Your task to perform on an android device: Open eBay Image 0: 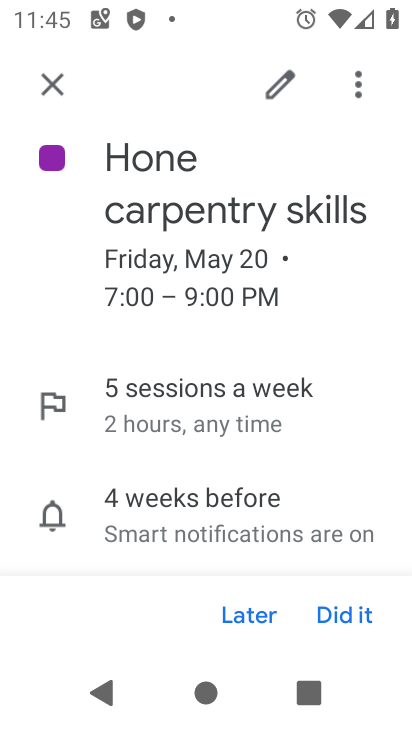
Step 0: press home button
Your task to perform on an android device: Open eBay Image 1: 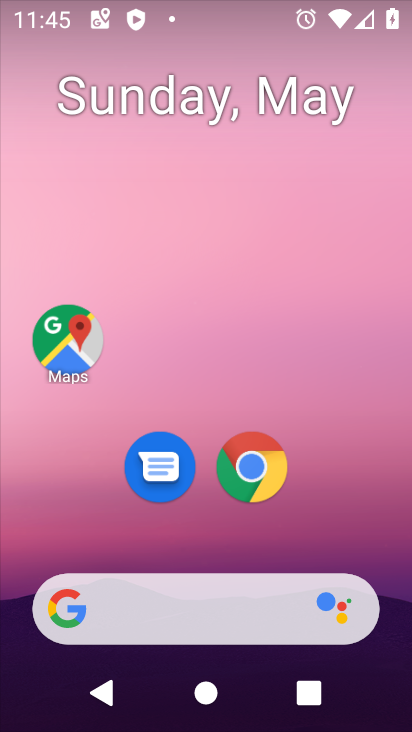
Step 1: click (256, 473)
Your task to perform on an android device: Open eBay Image 2: 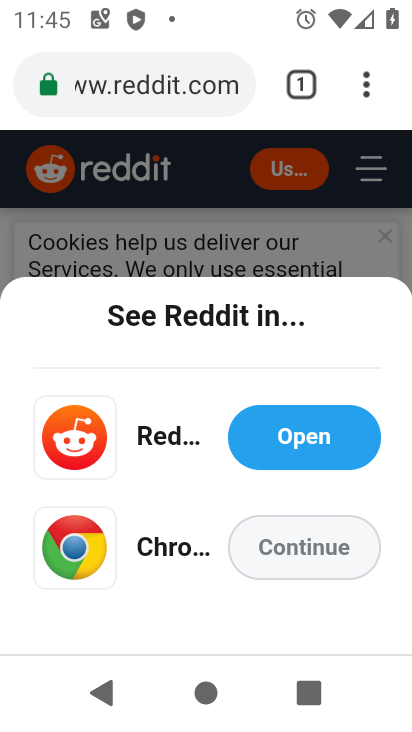
Step 2: click (98, 83)
Your task to perform on an android device: Open eBay Image 3: 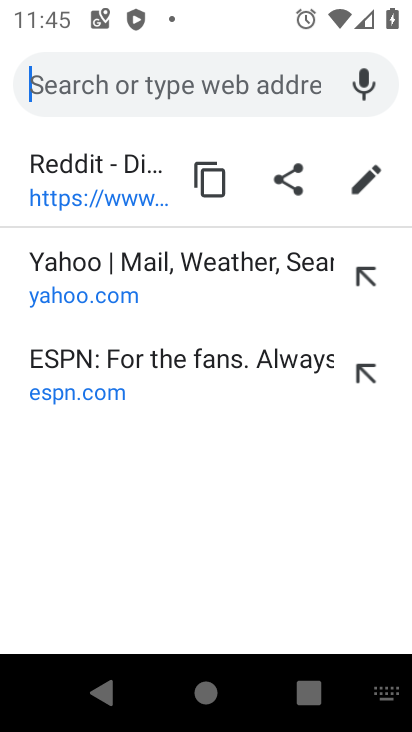
Step 3: type "ebay"
Your task to perform on an android device: Open eBay Image 4: 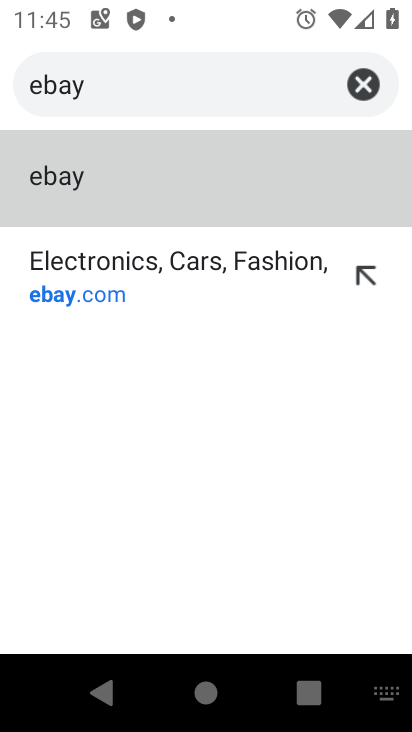
Step 4: click (52, 170)
Your task to perform on an android device: Open eBay Image 5: 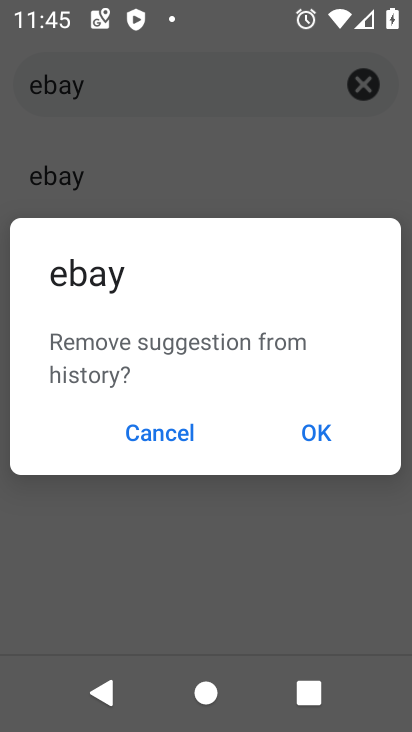
Step 5: click (165, 435)
Your task to perform on an android device: Open eBay Image 6: 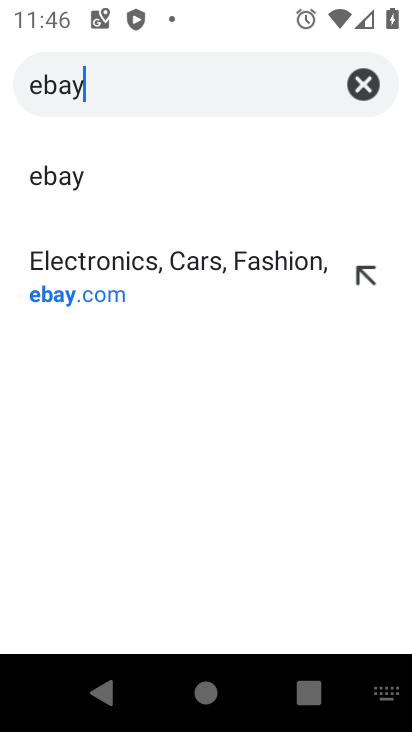
Step 6: click (50, 182)
Your task to perform on an android device: Open eBay Image 7: 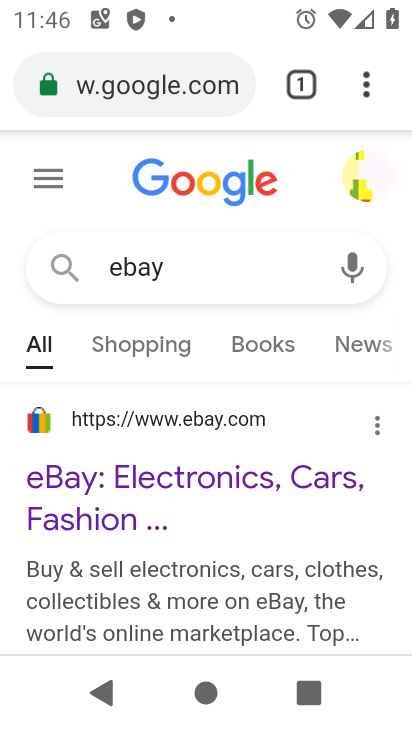
Step 7: click (74, 500)
Your task to perform on an android device: Open eBay Image 8: 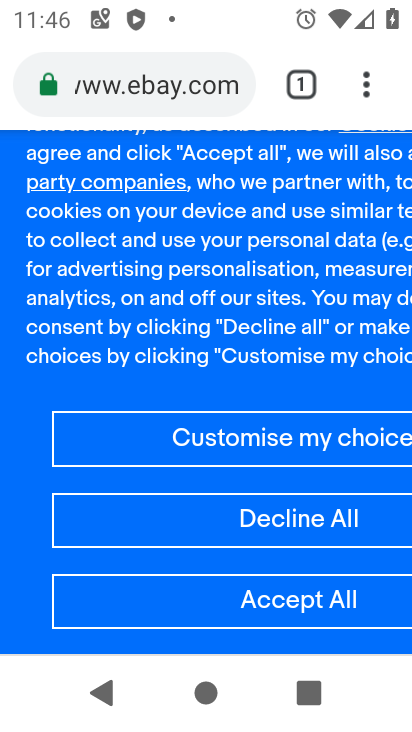
Step 8: task complete